Your task to perform on an android device: When is my next appointment? Image 0: 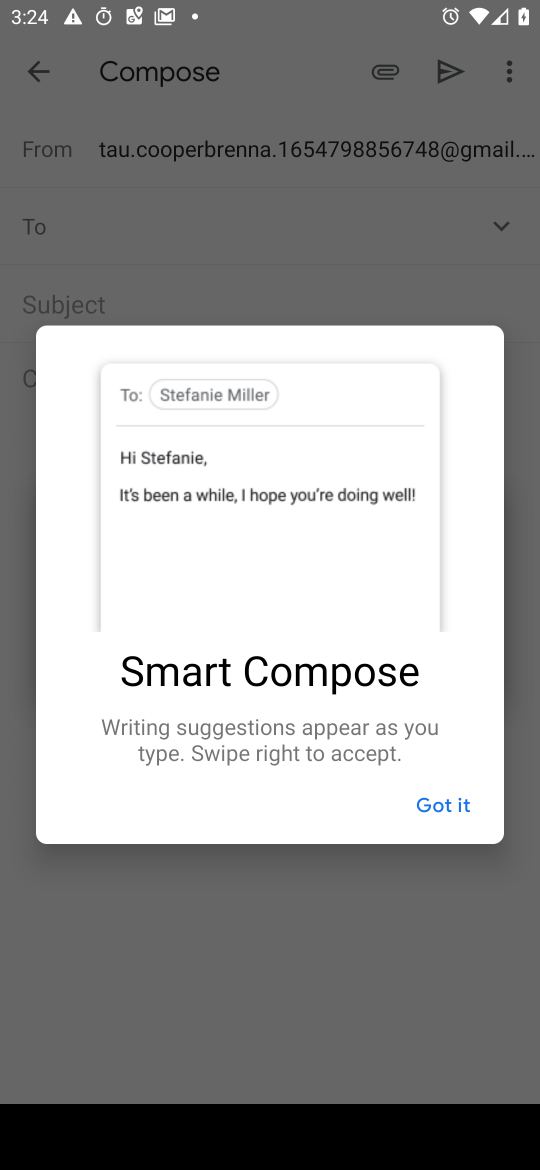
Step 0: press home button
Your task to perform on an android device: When is my next appointment? Image 1: 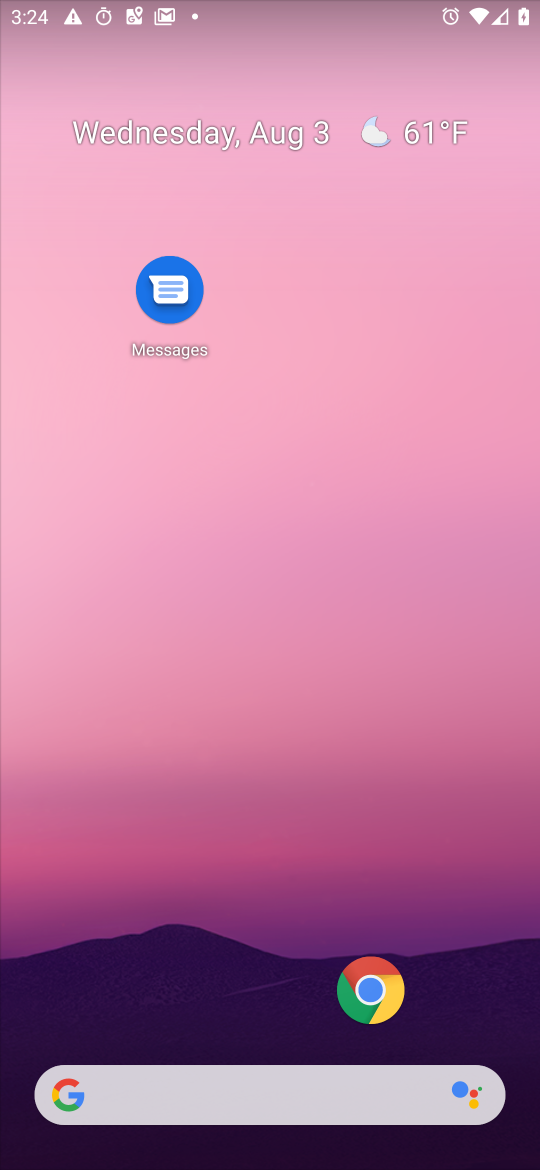
Step 1: drag from (272, 1055) to (182, 27)
Your task to perform on an android device: When is my next appointment? Image 2: 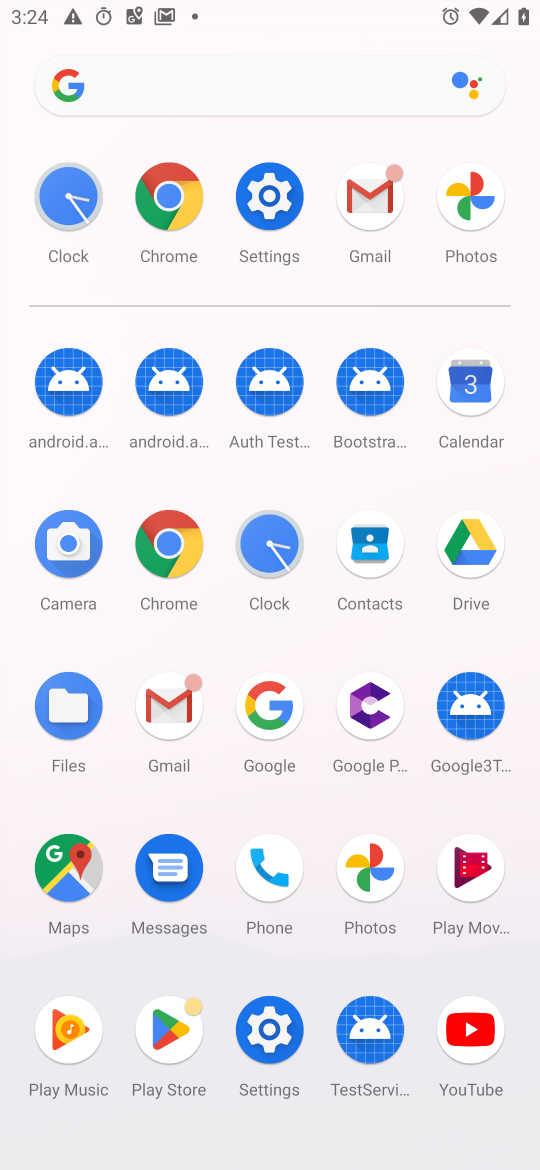
Step 2: click (446, 400)
Your task to perform on an android device: When is my next appointment? Image 3: 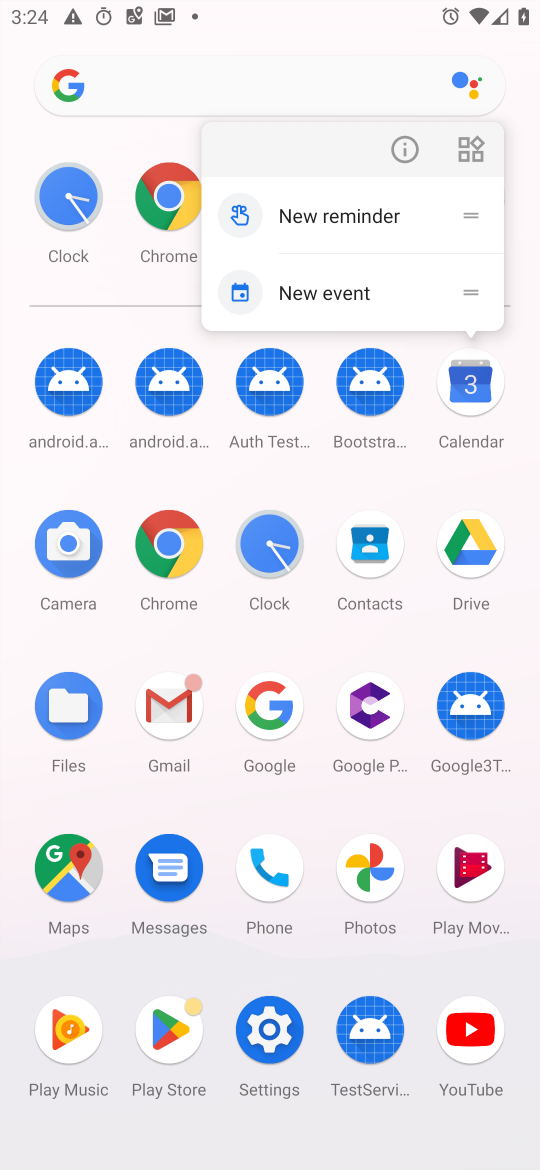
Step 3: click (467, 390)
Your task to perform on an android device: When is my next appointment? Image 4: 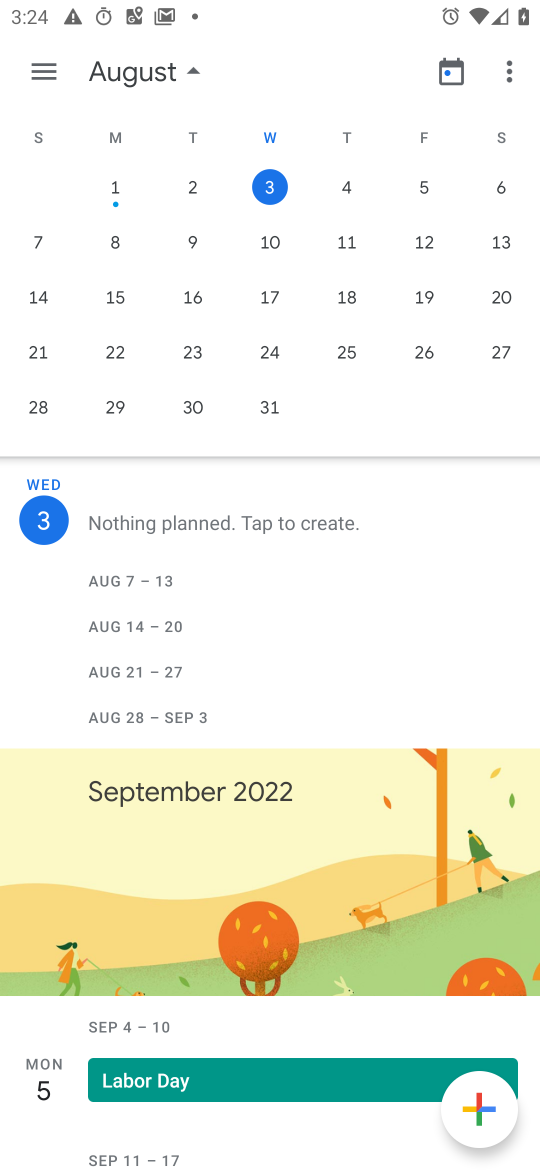
Step 4: drag from (223, 698) to (208, 418)
Your task to perform on an android device: When is my next appointment? Image 5: 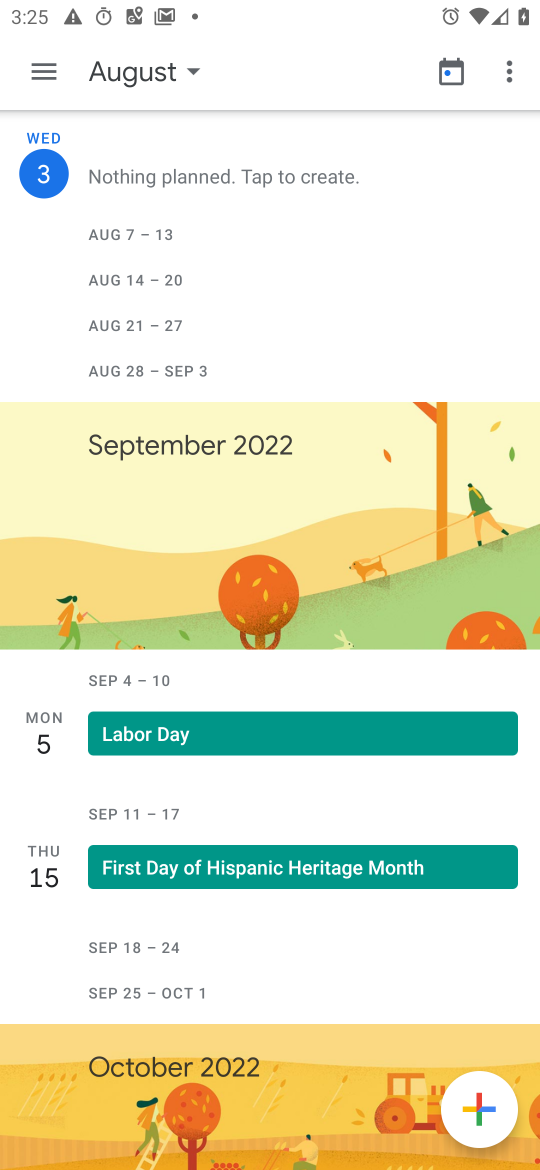
Step 5: click (136, 276)
Your task to perform on an android device: When is my next appointment? Image 6: 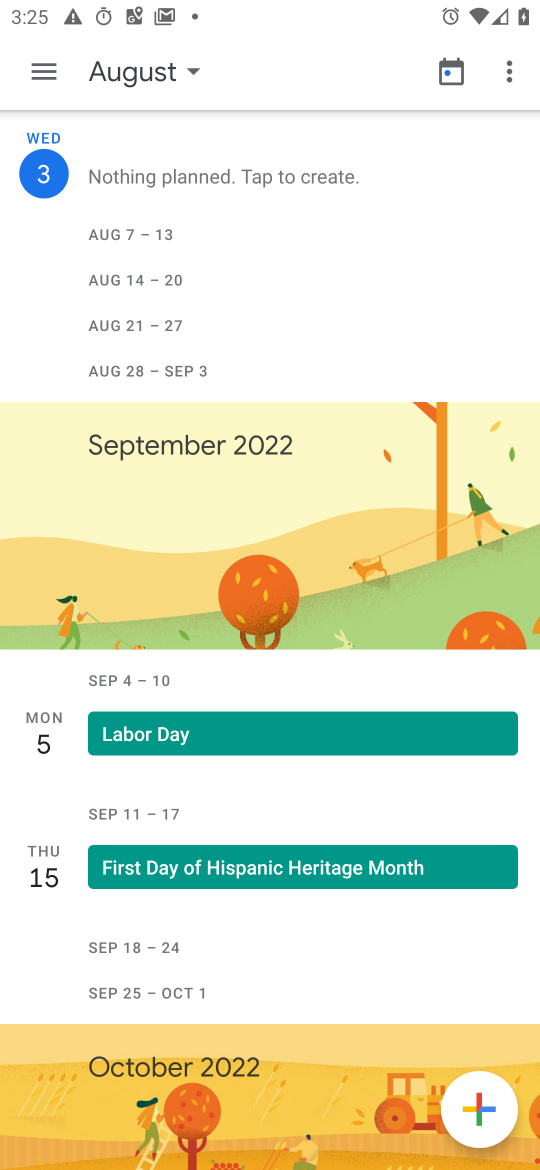
Step 6: click (129, 239)
Your task to perform on an android device: When is my next appointment? Image 7: 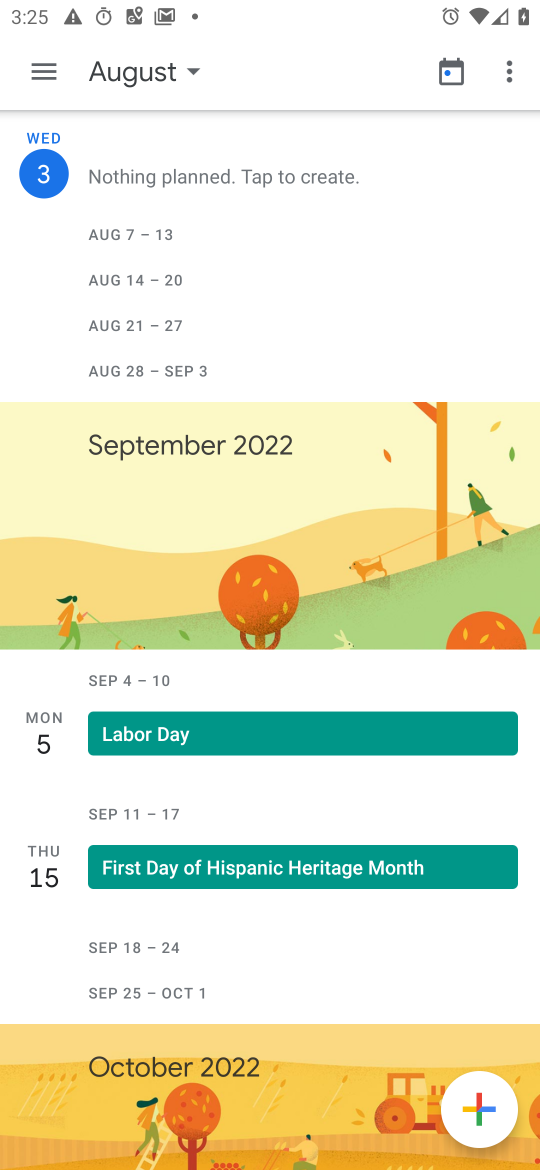
Step 7: click (142, 348)
Your task to perform on an android device: When is my next appointment? Image 8: 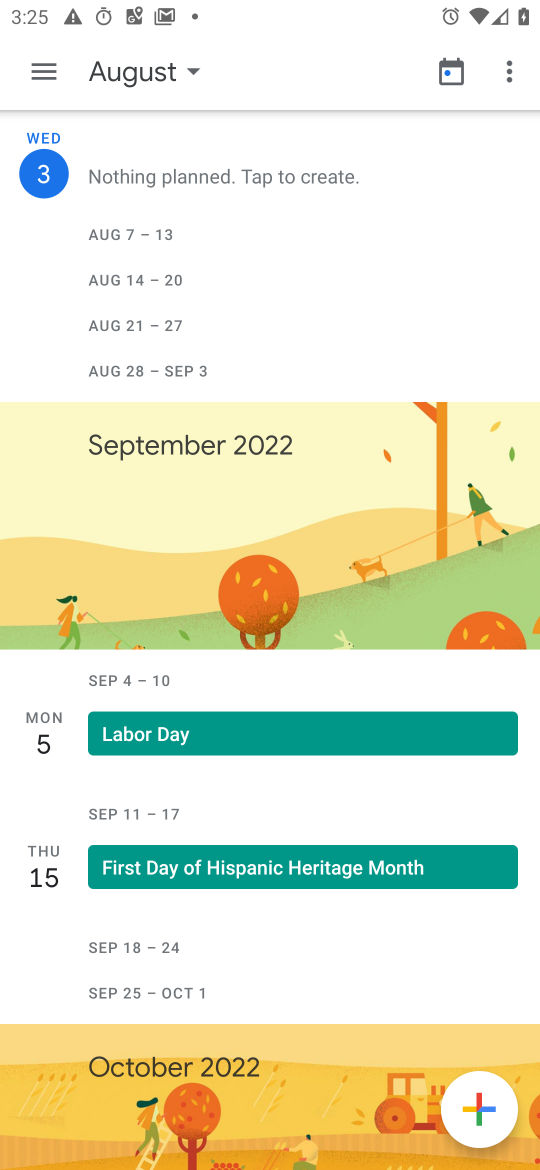
Step 8: task complete